Your task to perform on an android device: toggle translation in the chrome app Image 0: 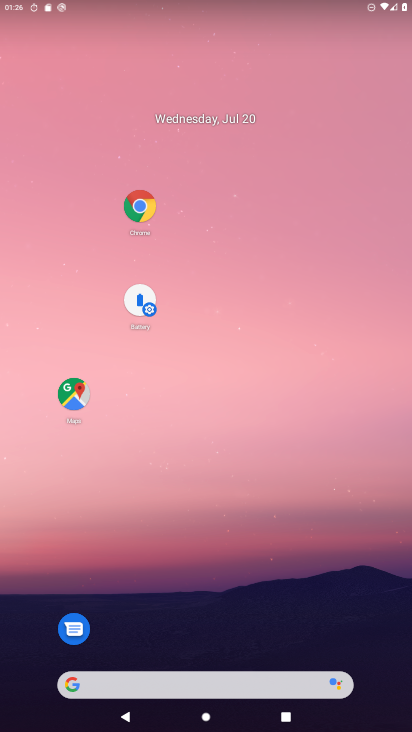
Step 0: drag from (221, 638) to (243, 190)
Your task to perform on an android device: toggle translation in the chrome app Image 1: 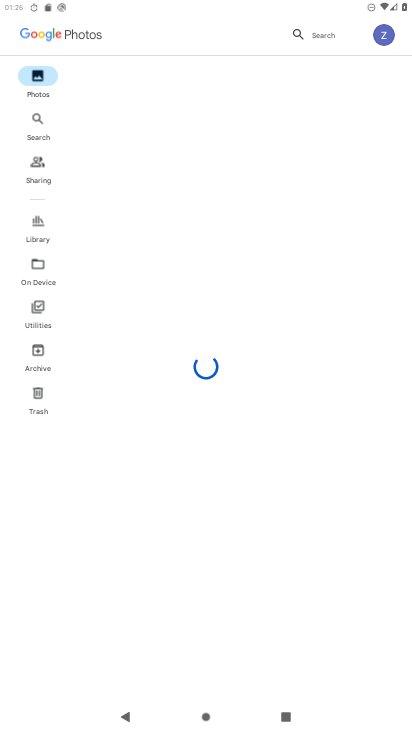
Step 1: press home button
Your task to perform on an android device: toggle translation in the chrome app Image 2: 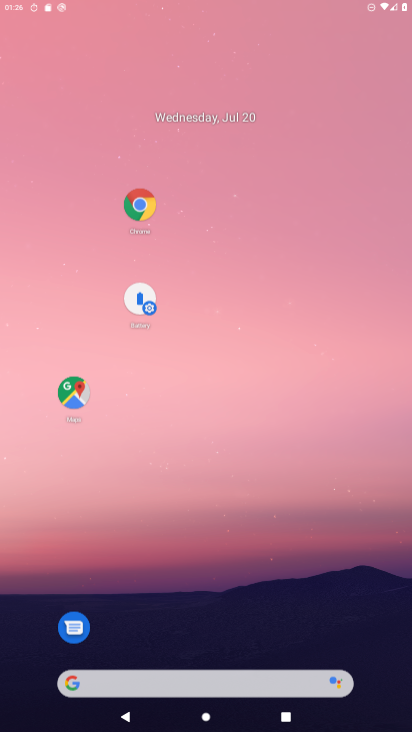
Step 2: drag from (160, 624) to (314, 189)
Your task to perform on an android device: toggle translation in the chrome app Image 3: 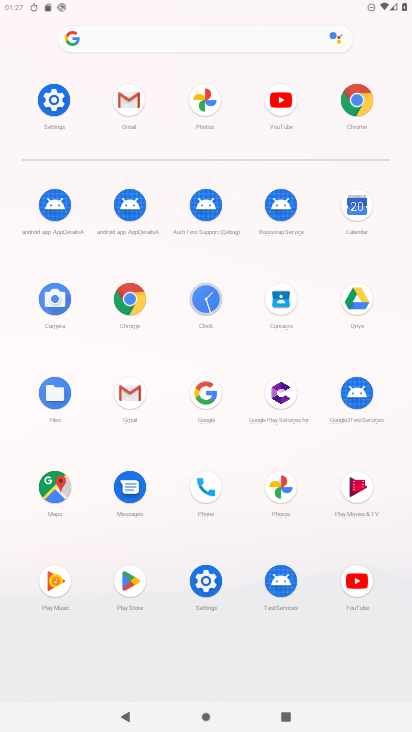
Step 3: click (134, 295)
Your task to perform on an android device: toggle translation in the chrome app Image 4: 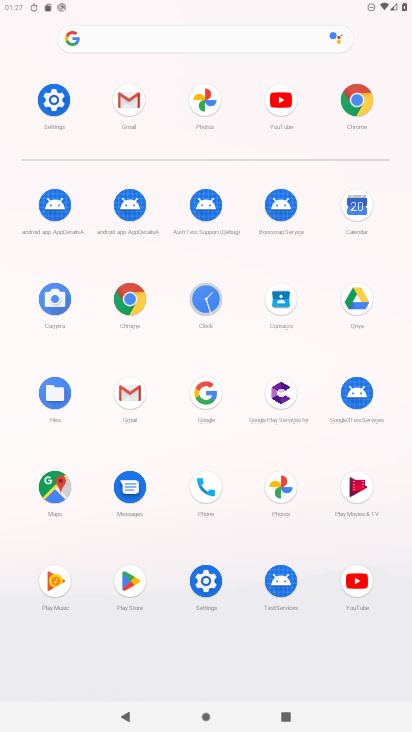
Step 4: click (134, 295)
Your task to perform on an android device: toggle translation in the chrome app Image 5: 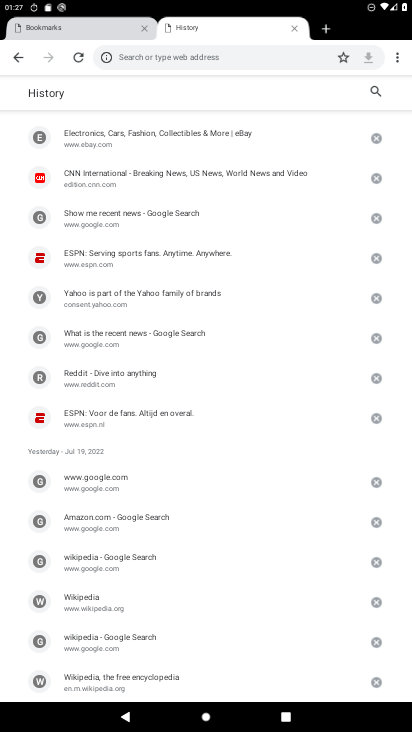
Step 5: click (327, 29)
Your task to perform on an android device: toggle translation in the chrome app Image 6: 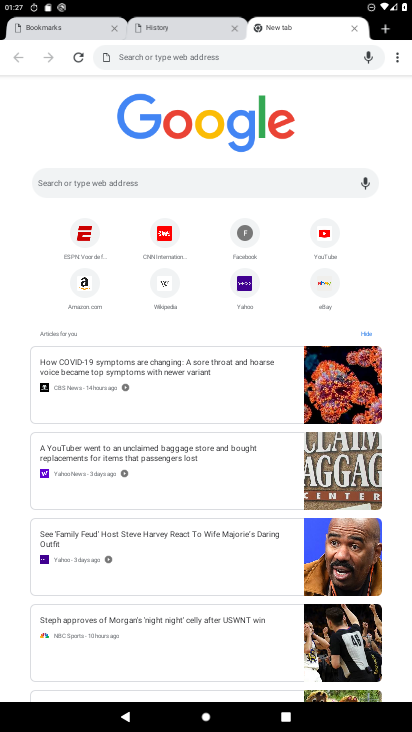
Step 6: drag from (402, 57) to (284, 261)
Your task to perform on an android device: toggle translation in the chrome app Image 7: 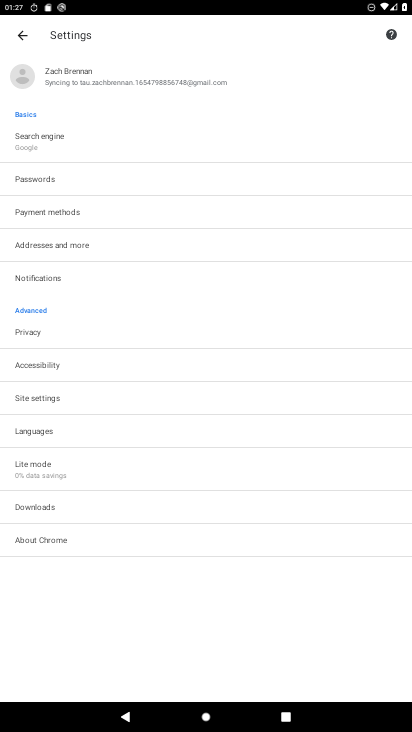
Step 7: click (64, 427)
Your task to perform on an android device: toggle translation in the chrome app Image 8: 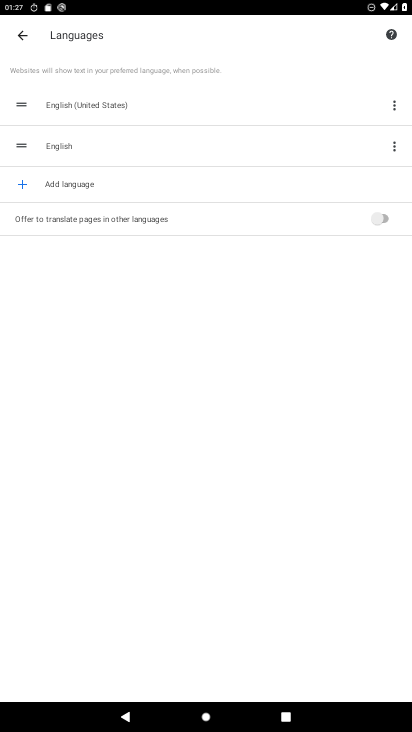
Step 8: click (368, 219)
Your task to perform on an android device: toggle translation in the chrome app Image 9: 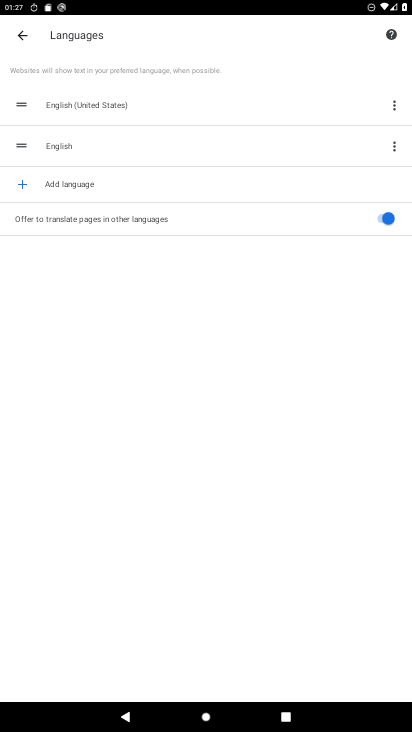
Step 9: task complete